Your task to perform on an android device: empty trash in the gmail app Image 0: 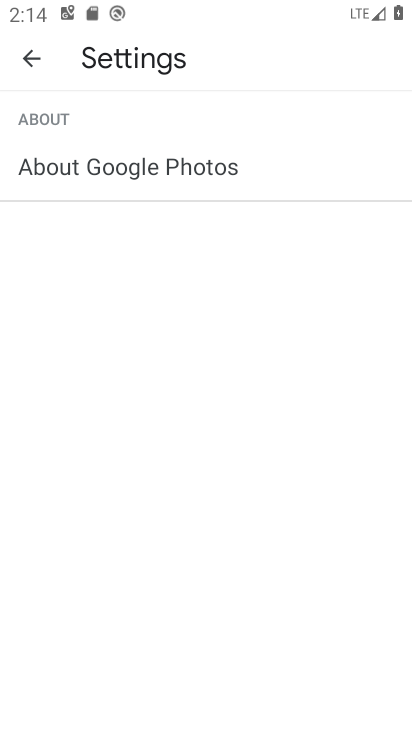
Step 0: press home button
Your task to perform on an android device: empty trash in the gmail app Image 1: 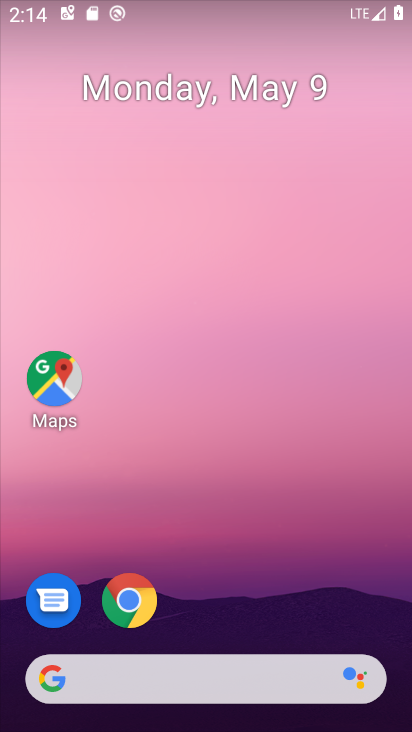
Step 1: drag from (270, 632) to (340, 11)
Your task to perform on an android device: empty trash in the gmail app Image 2: 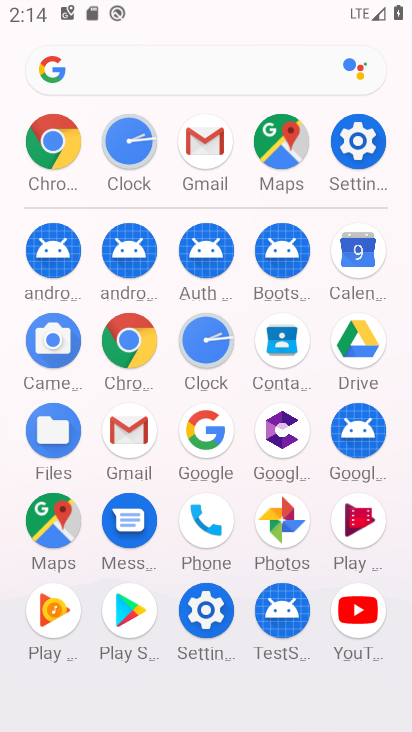
Step 2: click (129, 434)
Your task to perform on an android device: empty trash in the gmail app Image 3: 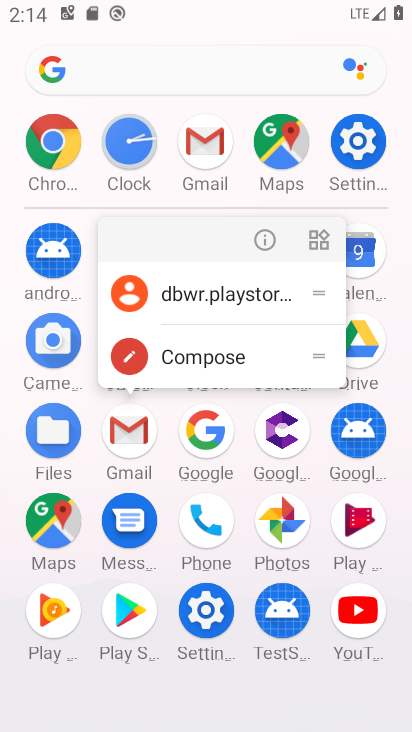
Step 3: click (127, 446)
Your task to perform on an android device: empty trash in the gmail app Image 4: 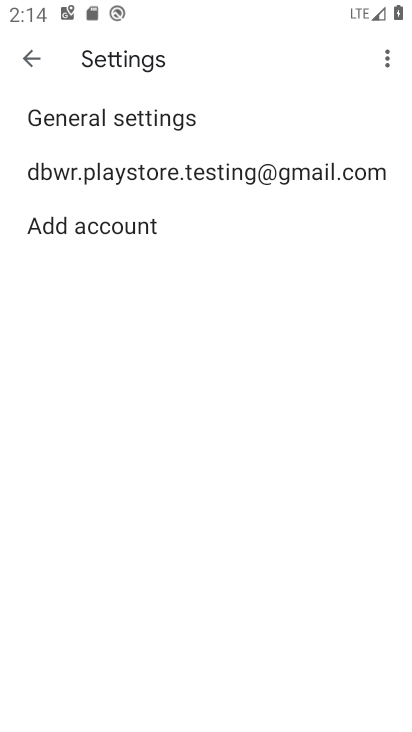
Step 4: click (32, 56)
Your task to perform on an android device: empty trash in the gmail app Image 5: 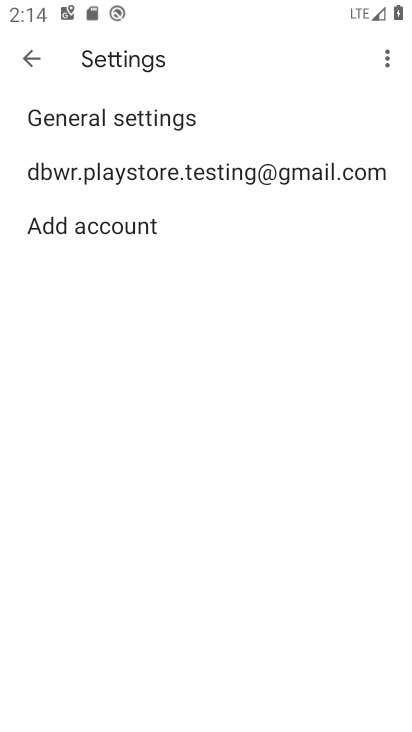
Step 5: click (30, 59)
Your task to perform on an android device: empty trash in the gmail app Image 6: 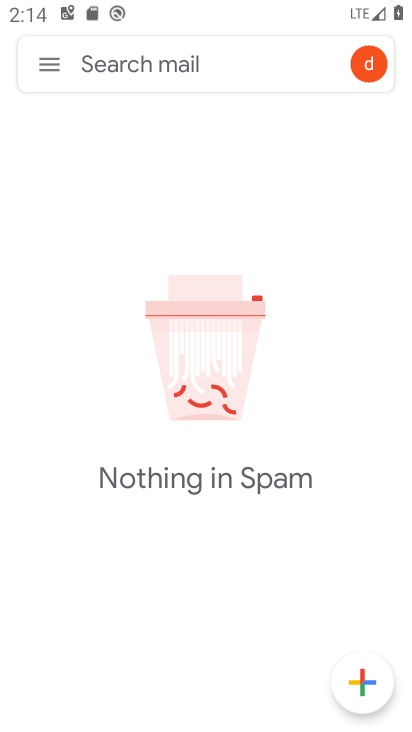
Step 6: click (41, 63)
Your task to perform on an android device: empty trash in the gmail app Image 7: 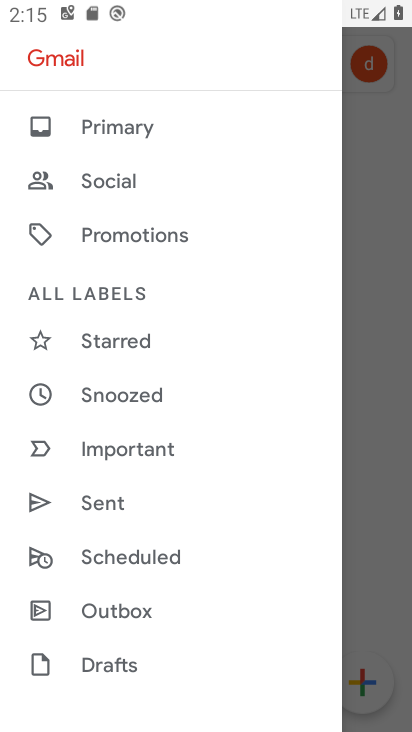
Step 7: drag from (132, 631) to (119, 481)
Your task to perform on an android device: empty trash in the gmail app Image 8: 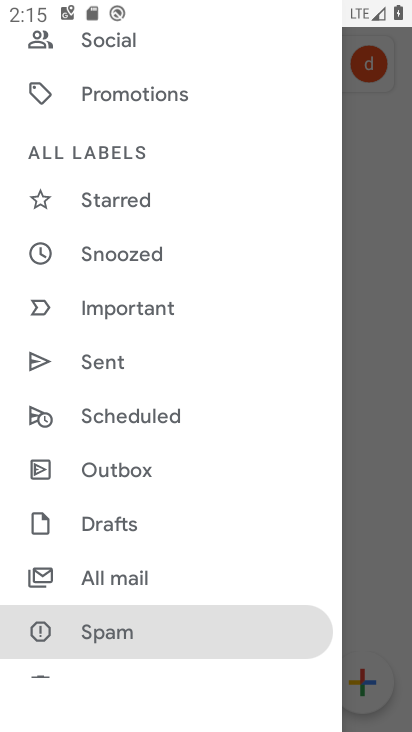
Step 8: drag from (145, 625) to (119, 489)
Your task to perform on an android device: empty trash in the gmail app Image 9: 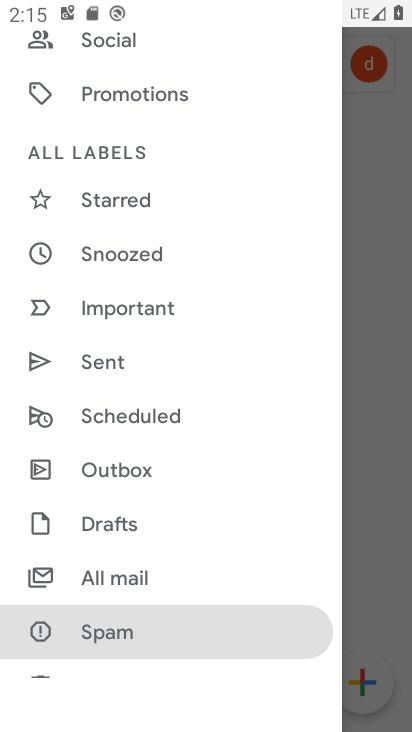
Step 9: drag from (106, 568) to (128, 354)
Your task to perform on an android device: empty trash in the gmail app Image 10: 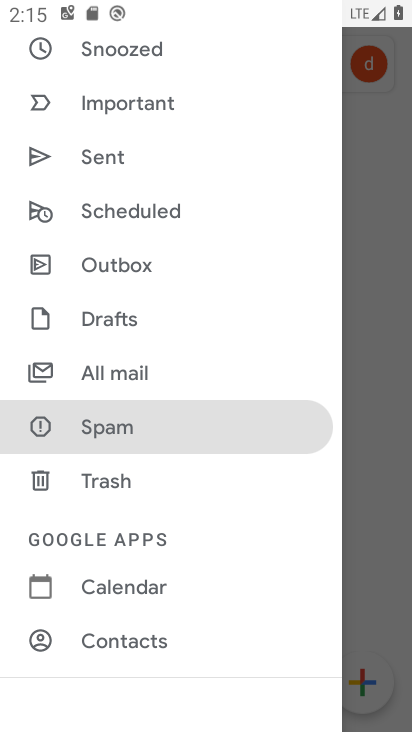
Step 10: click (123, 498)
Your task to perform on an android device: empty trash in the gmail app Image 11: 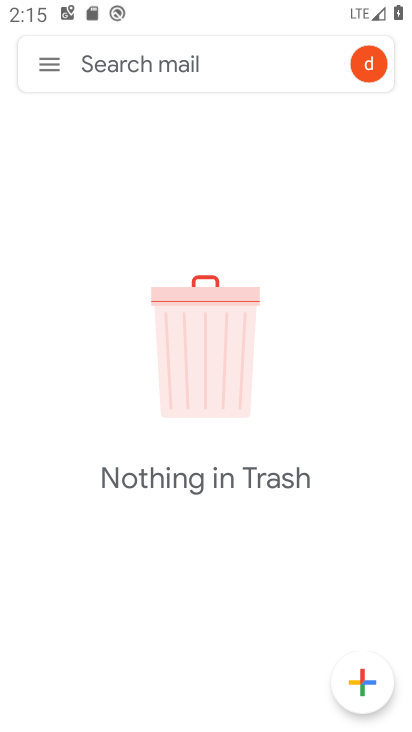
Step 11: task complete